Your task to perform on an android device: uninstall "Lyft - Rideshare, Bikes, Scooters & Transit" Image 0: 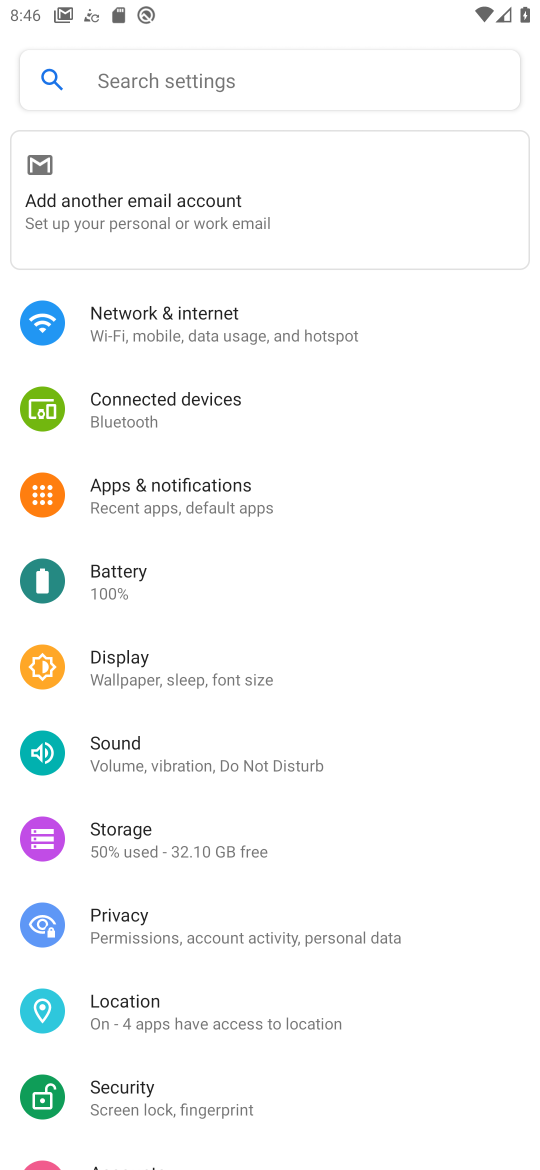
Step 0: press home button
Your task to perform on an android device: uninstall "Lyft - Rideshare, Bikes, Scooters & Transit" Image 1: 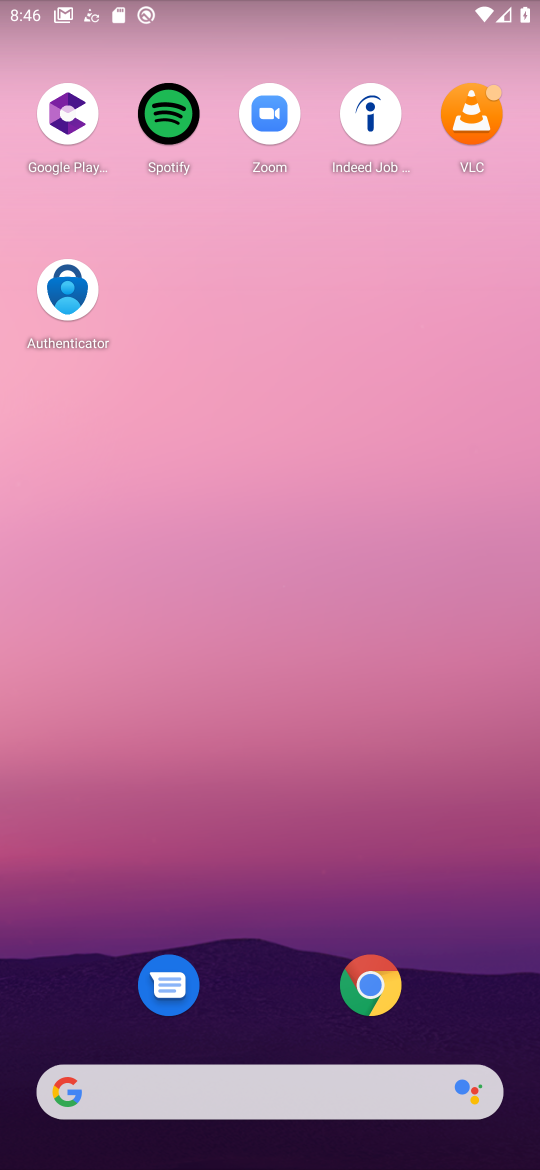
Step 1: drag from (274, 1009) to (361, 509)
Your task to perform on an android device: uninstall "Lyft - Rideshare, Bikes, Scooters & Transit" Image 2: 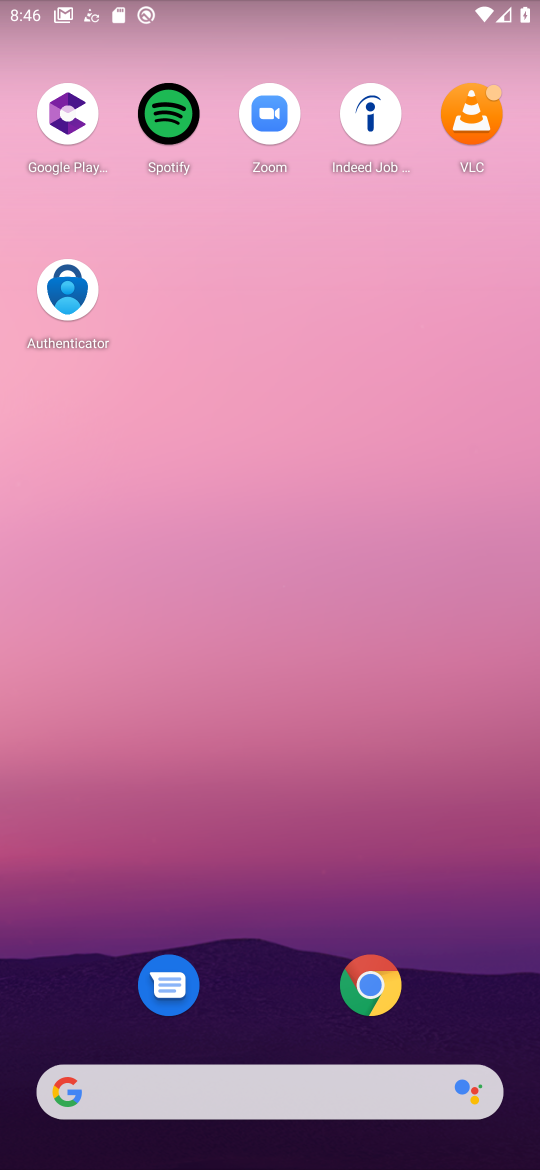
Step 2: drag from (245, 975) to (286, 564)
Your task to perform on an android device: uninstall "Lyft - Rideshare, Bikes, Scooters & Transit" Image 3: 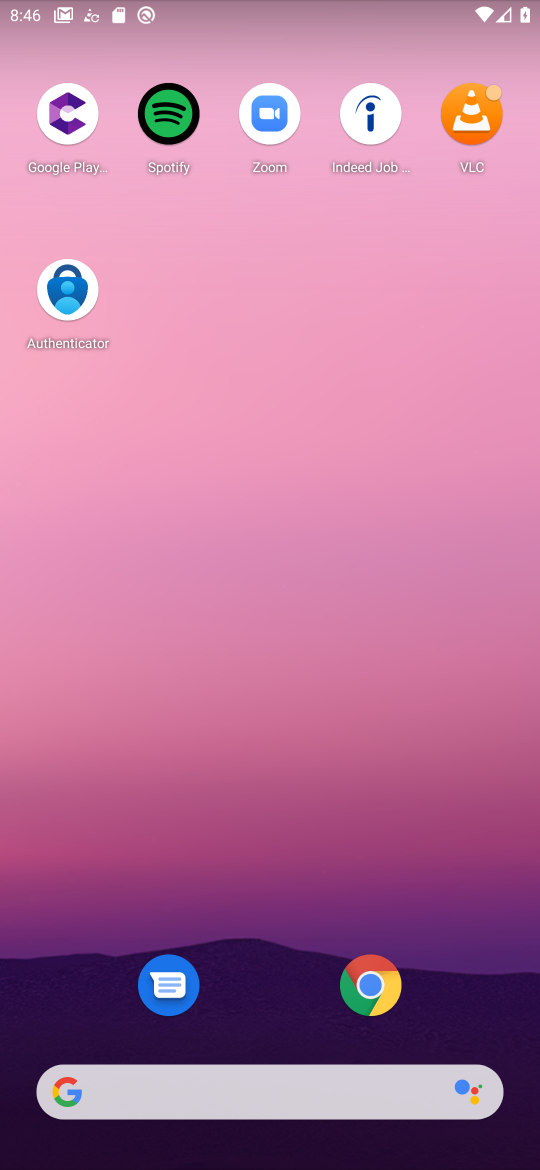
Step 3: drag from (242, 989) to (281, 524)
Your task to perform on an android device: uninstall "Lyft - Rideshare, Bikes, Scooters & Transit" Image 4: 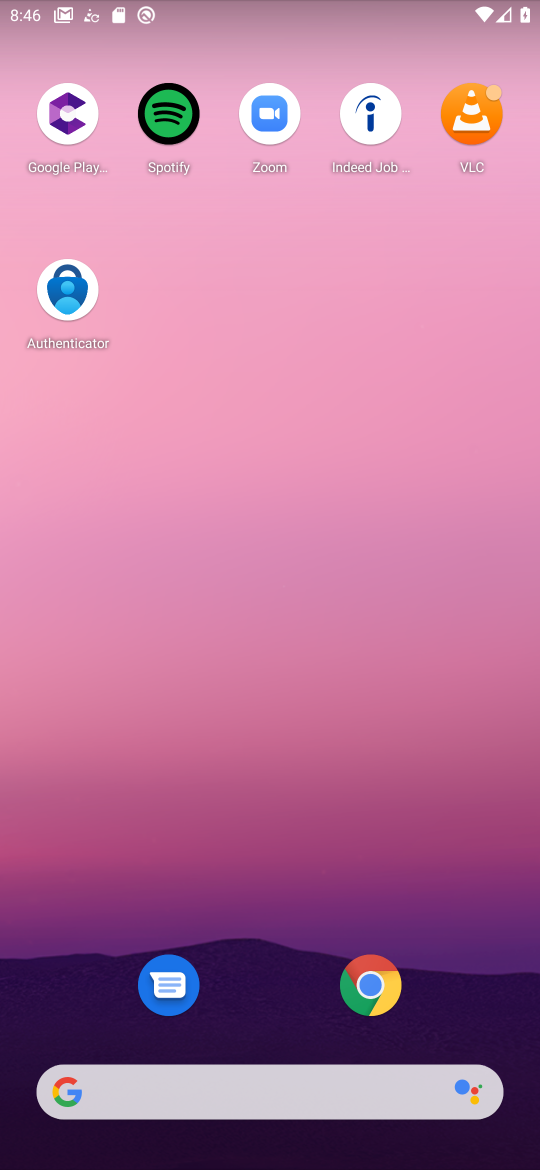
Step 4: drag from (278, 951) to (393, 153)
Your task to perform on an android device: uninstall "Lyft - Rideshare, Bikes, Scooters & Transit" Image 5: 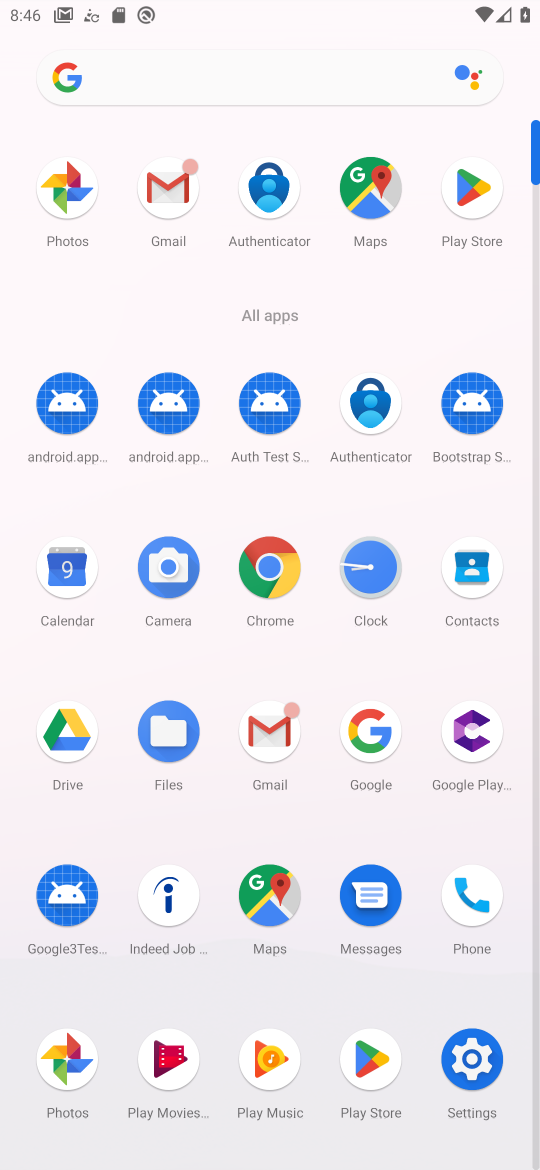
Step 5: click (361, 1069)
Your task to perform on an android device: uninstall "Lyft - Rideshare, Bikes, Scooters & Transit" Image 6: 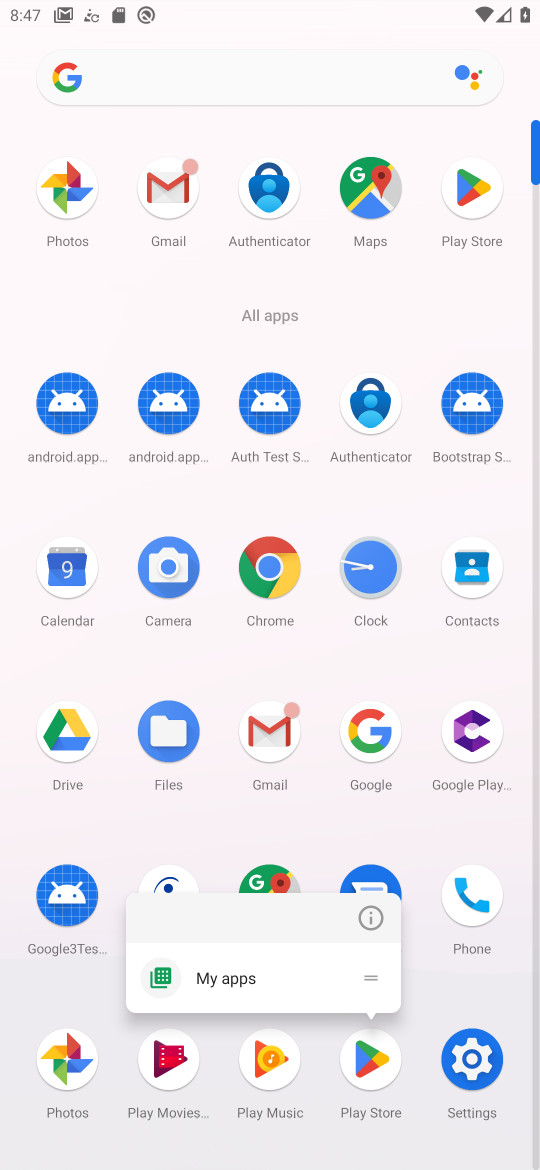
Step 6: click (369, 1068)
Your task to perform on an android device: uninstall "Lyft - Rideshare, Bikes, Scooters & Transit" Image 7: 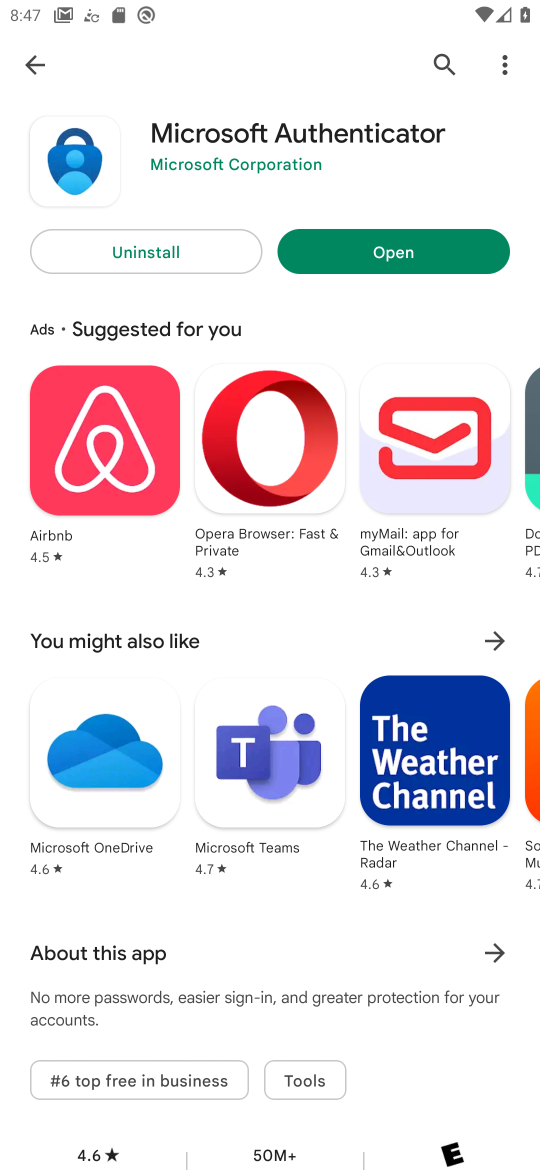
Step 7: click (38, 53)
Your task to perform on an android device: uninstall "Lyft - Rideshare, Bikes, Scooters & Transit" Image 8: 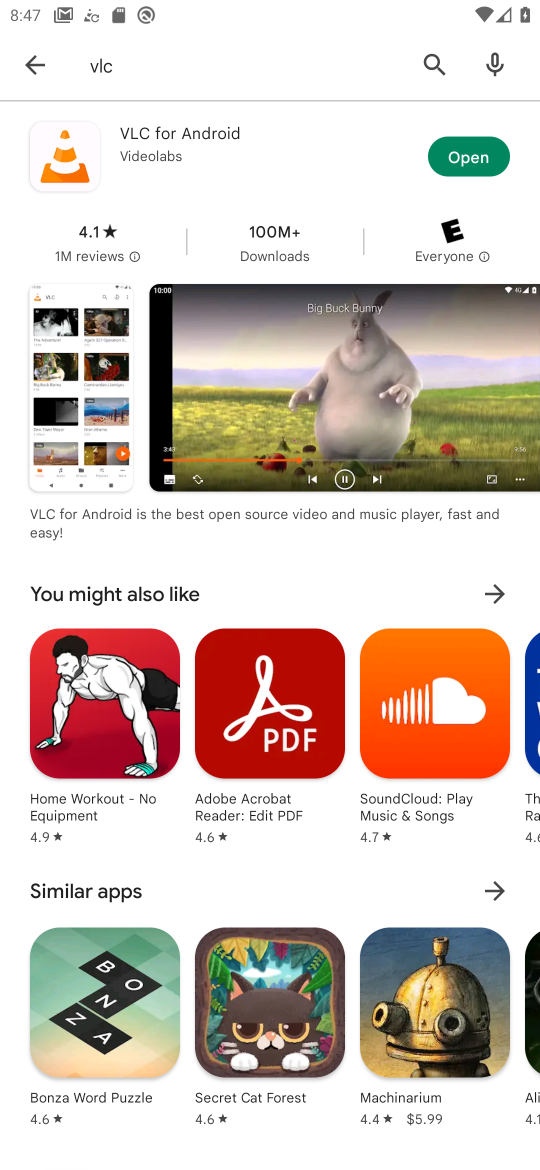
Step 8: click (246, 79)
Your task to perform on an android device: uninstall "Lyft - Rideshare, Bikes, Scooters & Transit" Image 9: 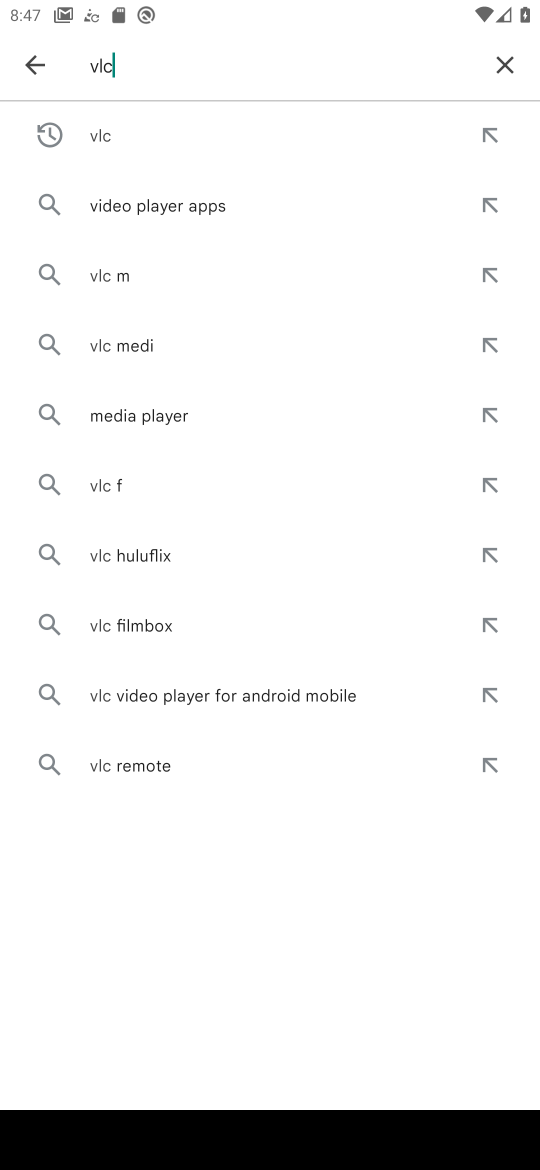
Step 9: click (500, 52)
Your task to perform on an android device: uninstall "Lyft - Rideshare, Bikes, Scooters & Transit" Image 10: 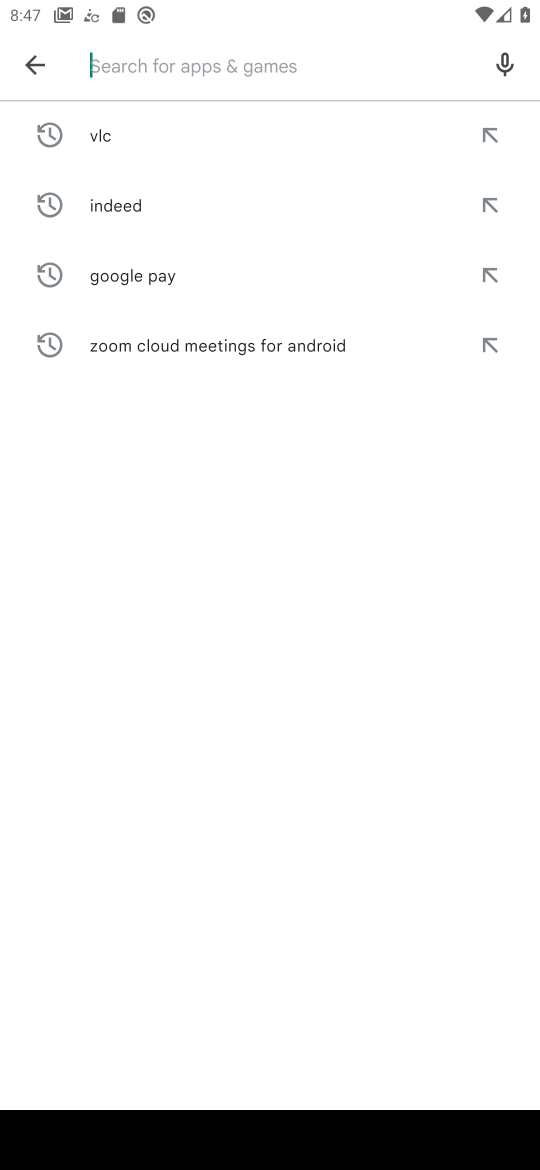
Step 10: type "lyft"
Your task to perform on an android device: uninstall "Lyft - Rideshare, Bikes, Scooters & Transit" Image 11: 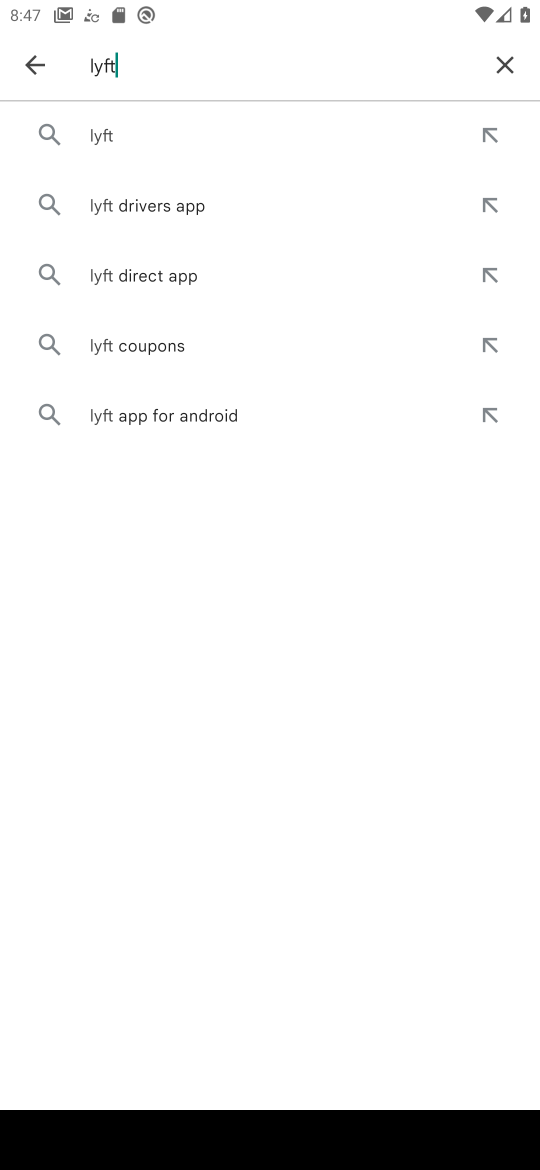
Step 11: click (156, 136)
Your task to perform on an android device: uninstall "Lyft - Rideshare, Bikes, Scooters & Transit" Image 12: 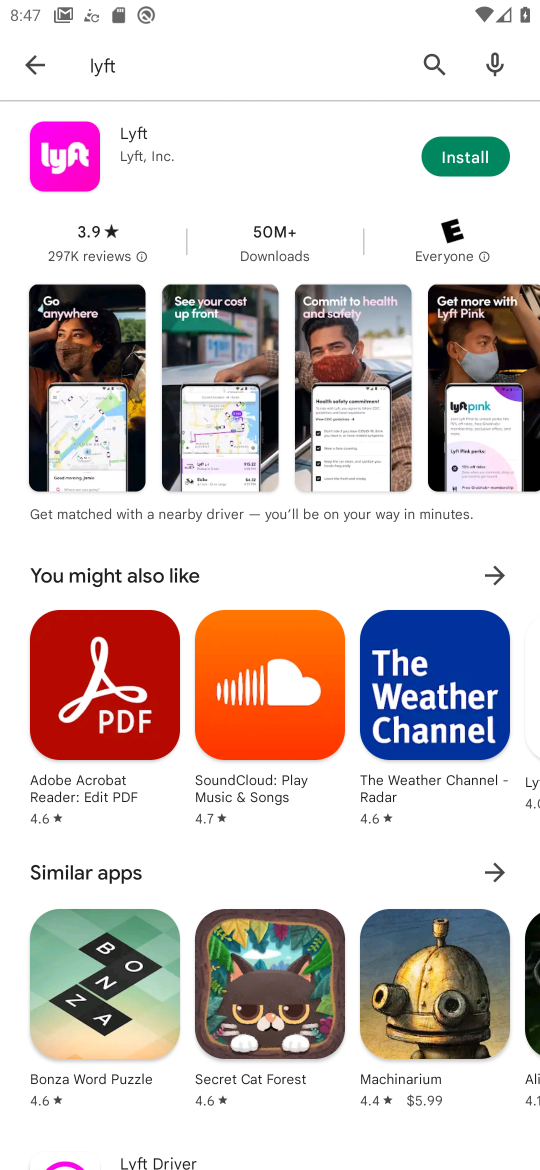
Step 12: task complete